Your task to perform on an android device: find photos in the google photos app Image 0: 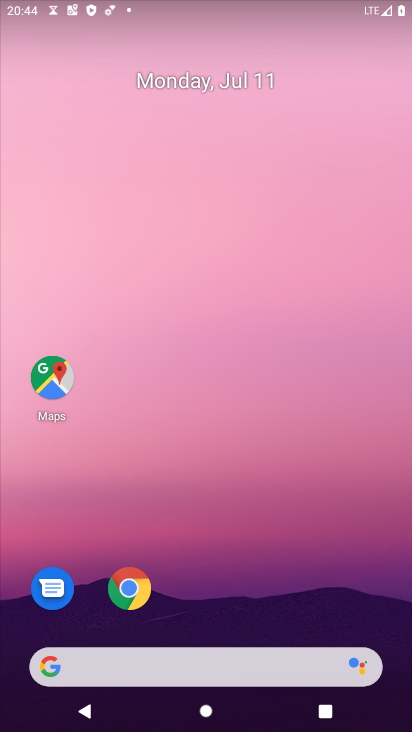
Step 0: press home button
Your task to perform on an android device: find photos in the google photos app Image 1: 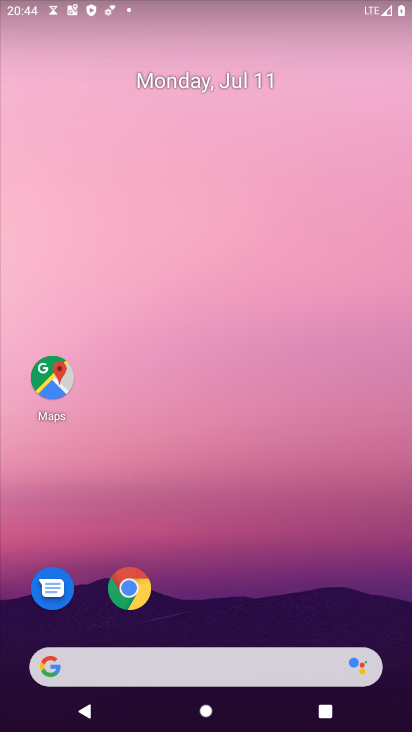
Step 1: drag from (205, 629) to (270, 130)
Your task to perform on an android device: find photos in the google photos app Image 2: 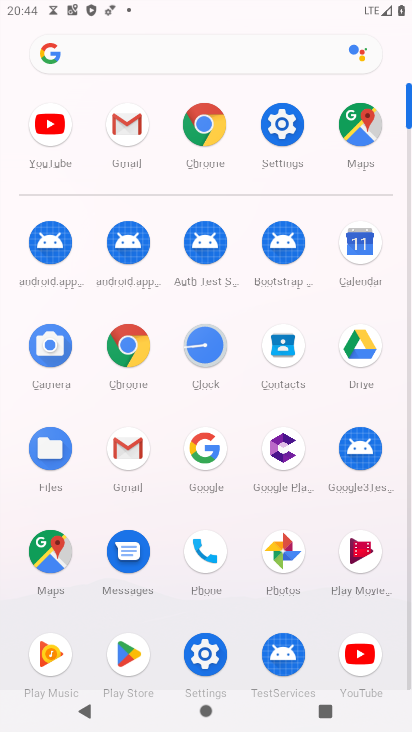
Step 2: click (292, 544)
Your task to perform on an android device: find photos in the google photos app Image 3: 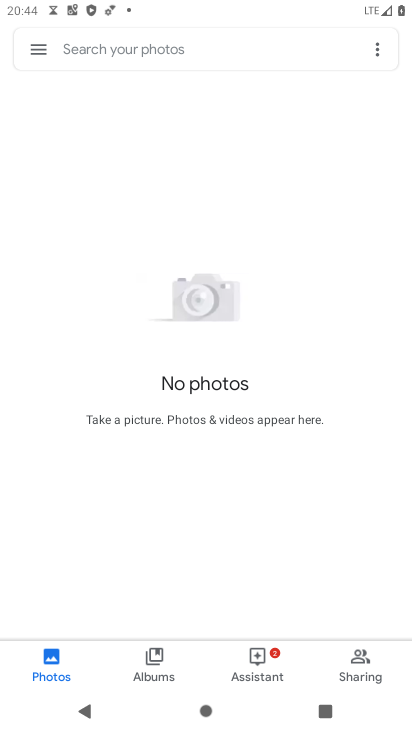
Step 3: task complete